Your task to perform on an android device: Search for the Best selling coffee table on Ikea Image 0: 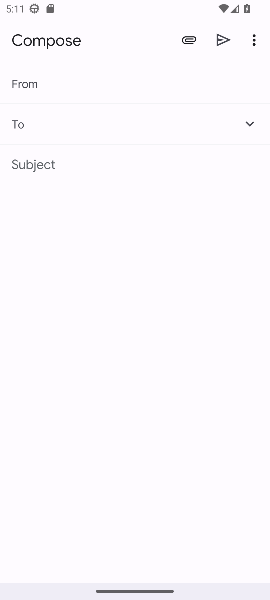
Step 0: press home button
Your task to perform on an android device: Search for the Best selling coffee table on Ikea Image 1: 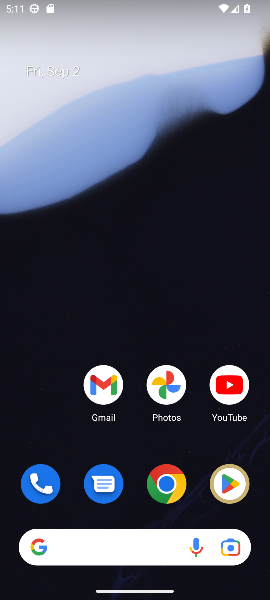
Step 1: click (166, 482)
Your task to perform on an android device: Search for the Best selling coffee table on Ikea Image 2: 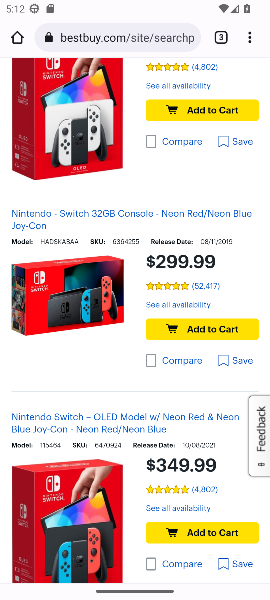
Step 2: click (161, 37)
Your task to perform on an android device: Search for the Best selling coffee table on Ikea Image 3: 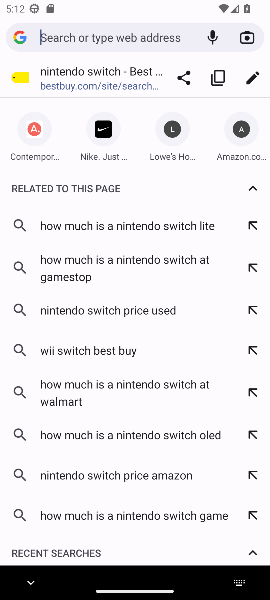
Step 3: type "Ikea"
Your task to perform on an android device: Search for the Best selling coffee table on Ikea Image 4: 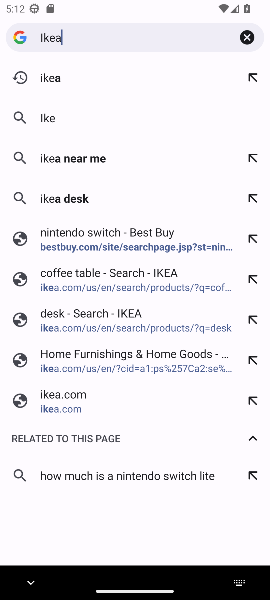
Step 4: press enter
Your task to perform on an android device: Search for the Best selling coffee table on Ikea Image 5: 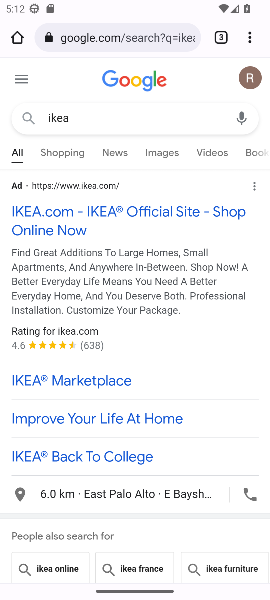
Step 5: click (169, 205)
Your task to perform on an android device: Search for the Best selling coffee table on Ikea Image 6: 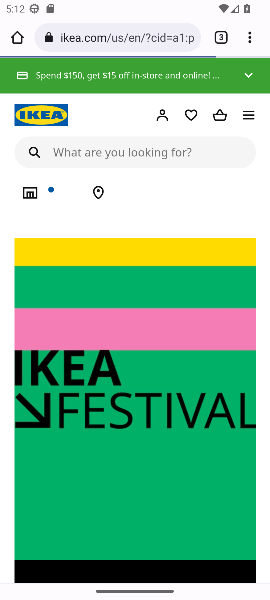
Step 6: click (130, 147)
Your task to perform on an android device: Search for the Best selling coffee table on Ikea Image 7: 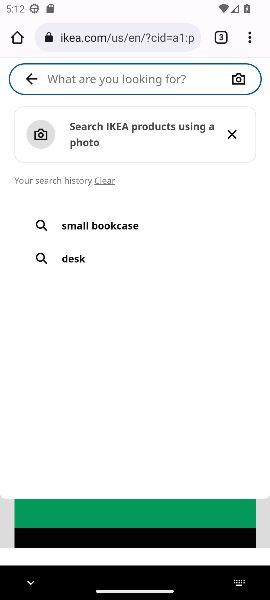
Step 7: type "coffee table"
Your task to perform on an android device: Search for the Best selling coffee table on Ikea Image 8: 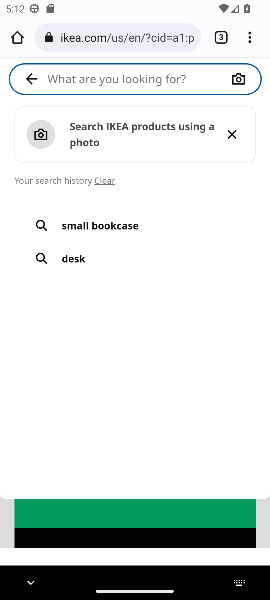
Step 8: press enter
Your task to perform on an android device: Search for the Best selling coffee table on Ikea Image 9: 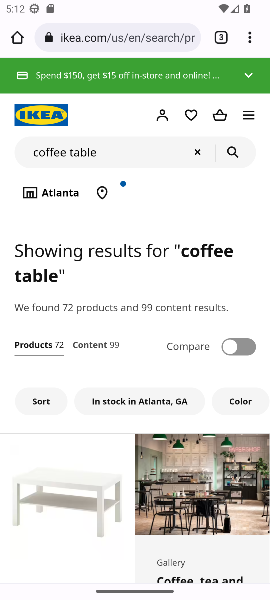
Step 9: task complete